Your task to perform on an android device: Open Chrome and go to the settings page Image 0: 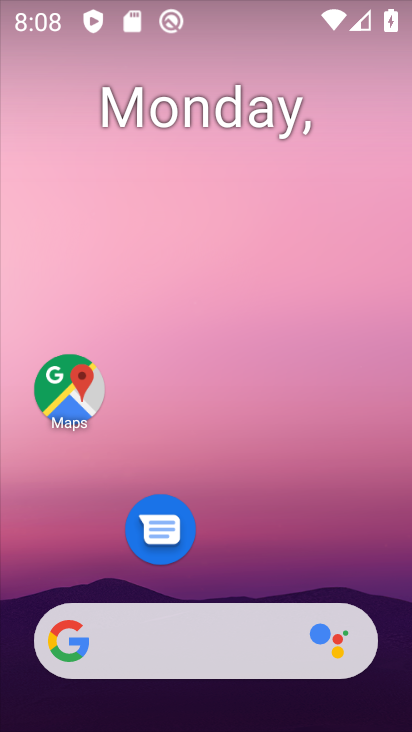
Step 0: drag from (234, 504) to (240, 165)
Your task to perform on an android device: Open Chrome and go to the settings page Image 1: 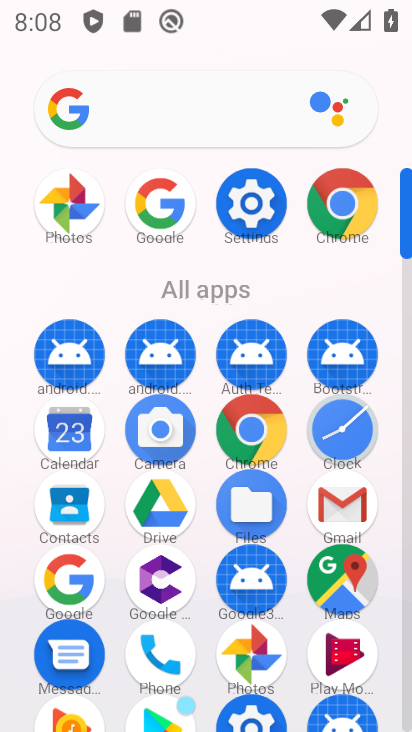
Step 1: click (344, 188)
Your task to perform on an android device: Open Chrome and go to the settings page Image 2: 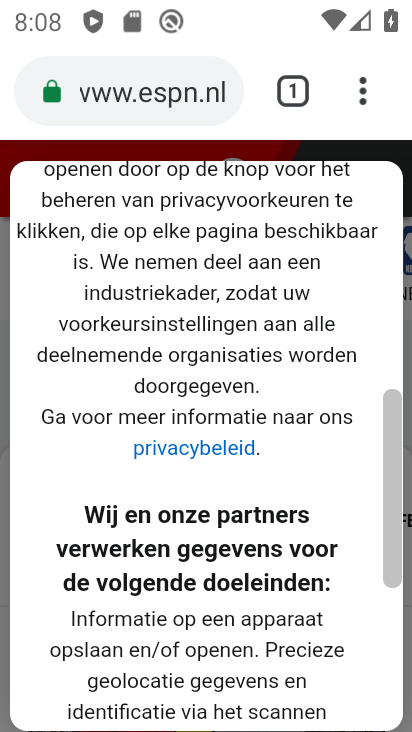
Step 2: click (362, 88)
Your task to perform on an android device: Open Chrome and go to the settings page Image 3: 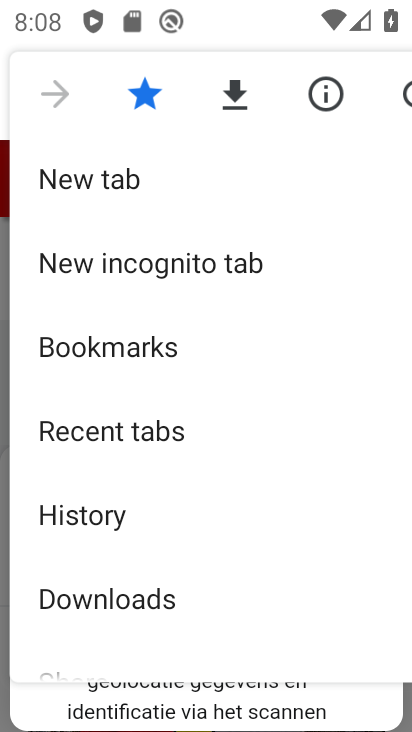
Step 3: drag from (206, 624) to (228, 231)
Your task to perform on an android device: Open Chrome and go to the settings page Image 4: 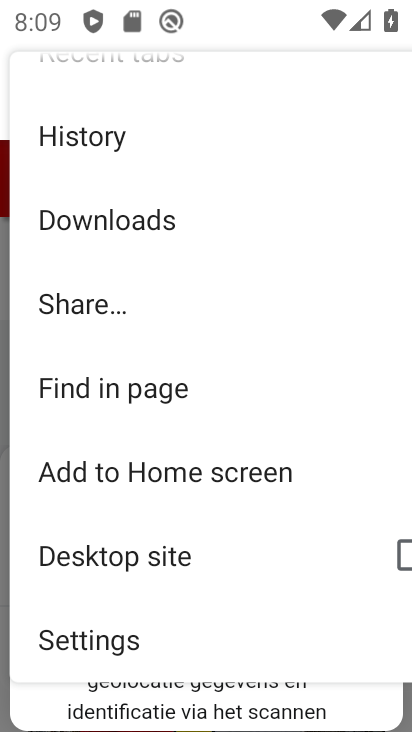
Step 4: click (128, 651)
Your task to perform on an android device: Open Chrome and go to the settings page Image 5: 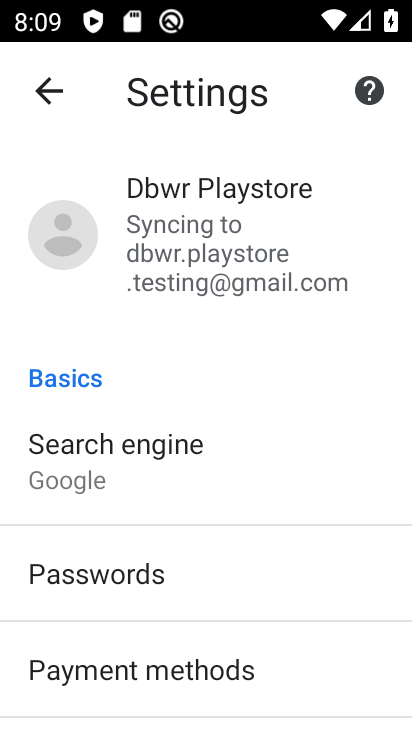
Step 5: task complete